Your task to perform on an android device: turn off notifications settings in the gmail app Image 0: 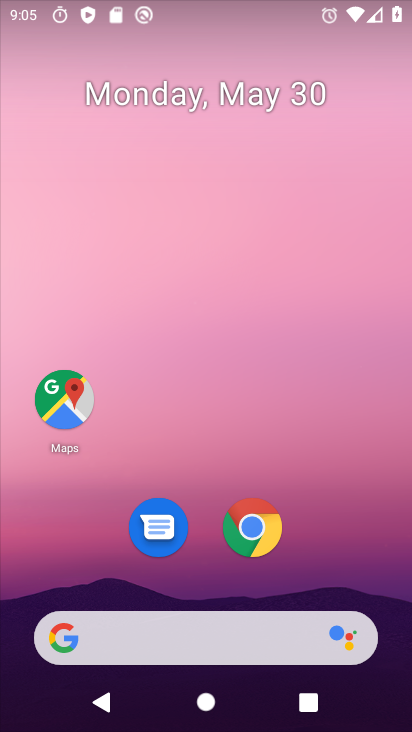
Step 0: drag from (308, 612) to (391, 2)
Your task to perform on an android device: turn off notifications settings in the gmail app Image 1: 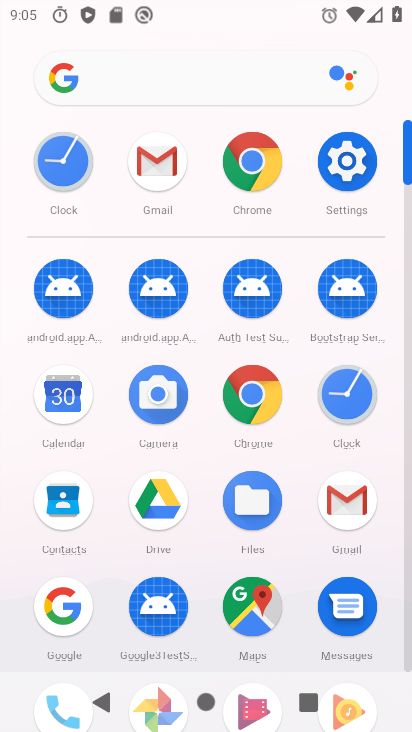
Step 1: click (348, 517)
Your task to perform on an android device: turn off notifications settings in the gmail app Image 2: 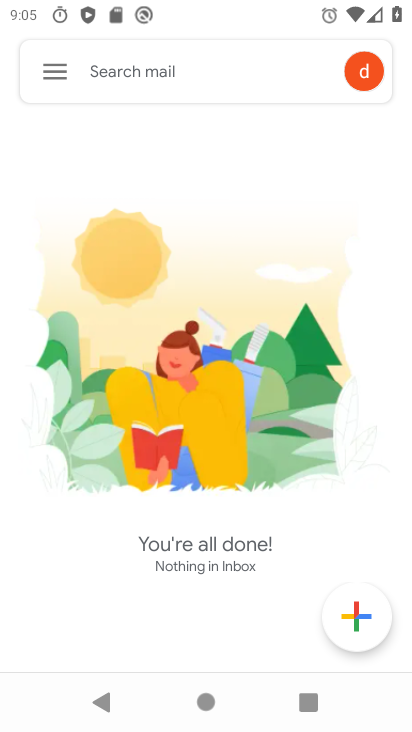
Step 2: click (49, 73)
Your task to perform on an android device: turn off notifications settings in the gmail app Image 3: 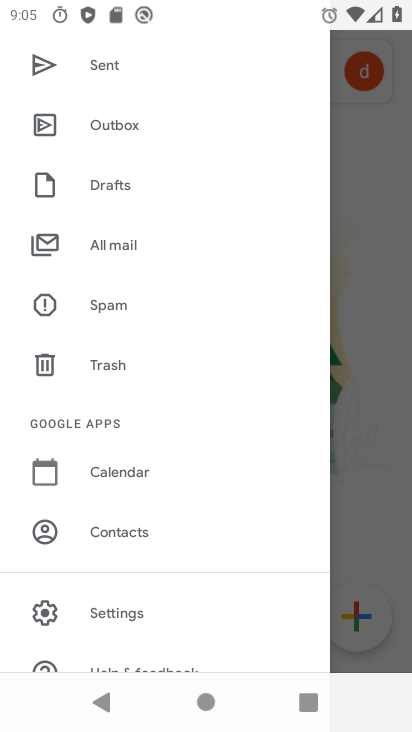
Step 3: click (132, 602)
Your task to perform on an android device: turn off notifications settings in the gmail app Image 4: 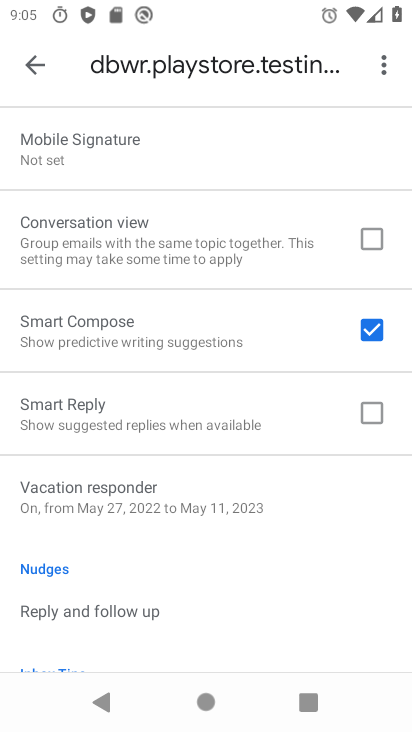
Step 4: drag from (200, 587) to (200, 108)
Your task to perform on an android device: turn off notifications settings in the gmail app Image 5: 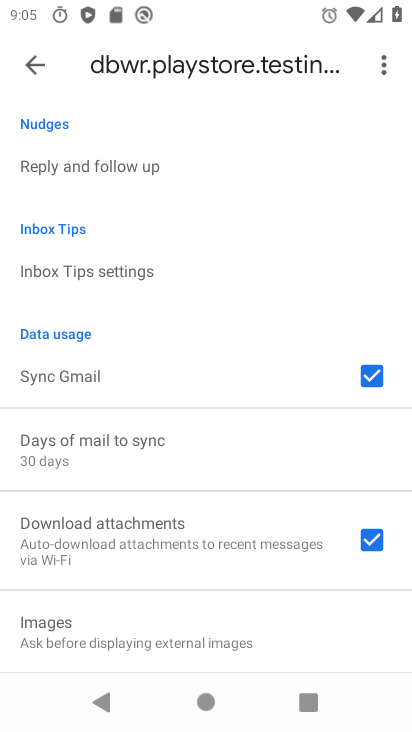
Step 5: drag from (183, 205) to (222, 555)
Your task to perform on an android device: turn off notifications settings in the gmail app Image 6: 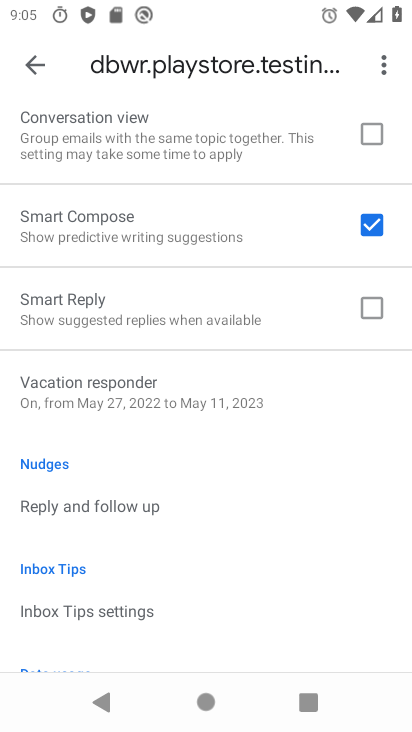
Step 6: drag from (255, 281) to (308, 679)
Your task to perform on an android device: turn off notifications settings in the gmail app Image 7: 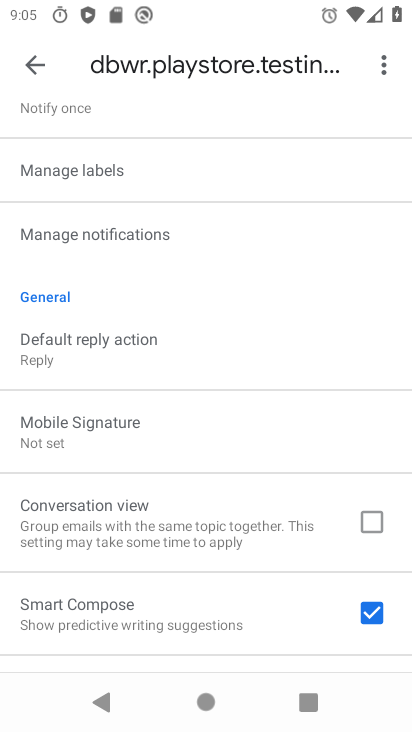
Step 7: click (190, 207)
Your task to perform on an android device: turn off notifications settings in the gmail app Image 8: 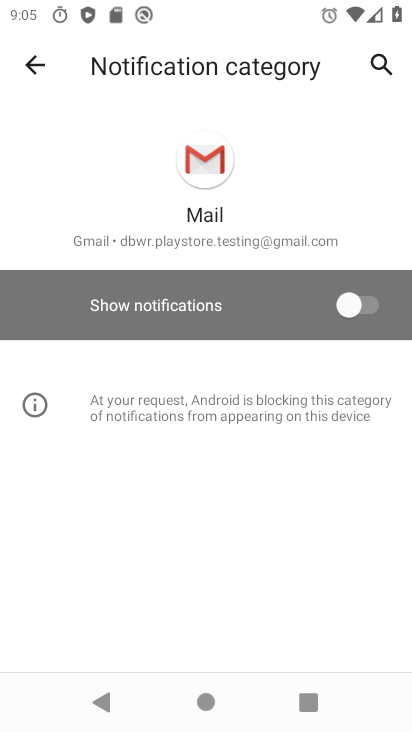
Step 8: task complete